Your task to perform on an android device: change the clock display to analog Image 0: 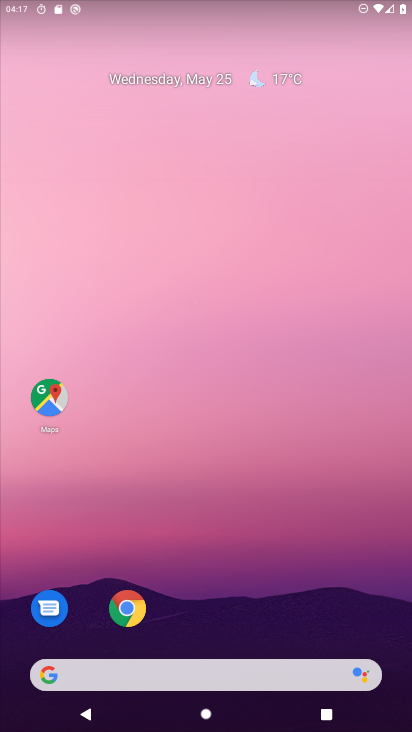
Step 0: drag from (243, 566) to (249, 135)
Your task to perform on an android device: change the clock display to analog Image 1: 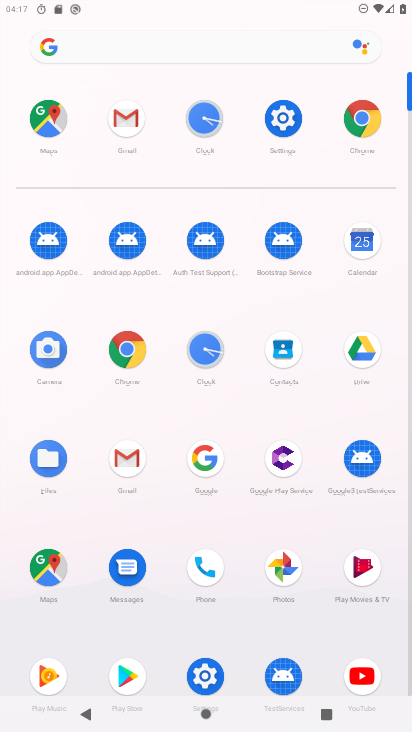
Step 1: click (209, 350)
Your task to perform on an android device: change the clock display to analog Image 2: 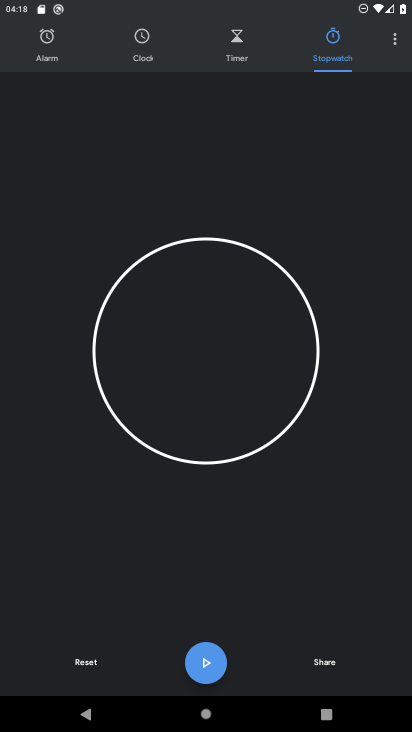
Step 2: click (393, 28)
Your task to perform on an android device: change the clock display to analog Image 3: 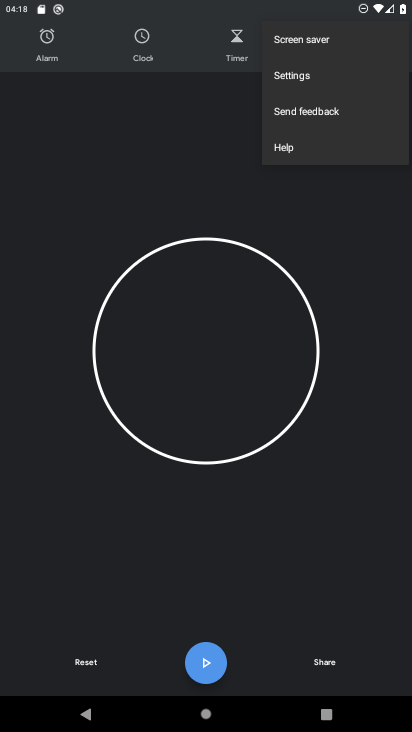
Step 3: click (309, 73)
Your task to perform on an android device: change the clock display to analog Image 4: 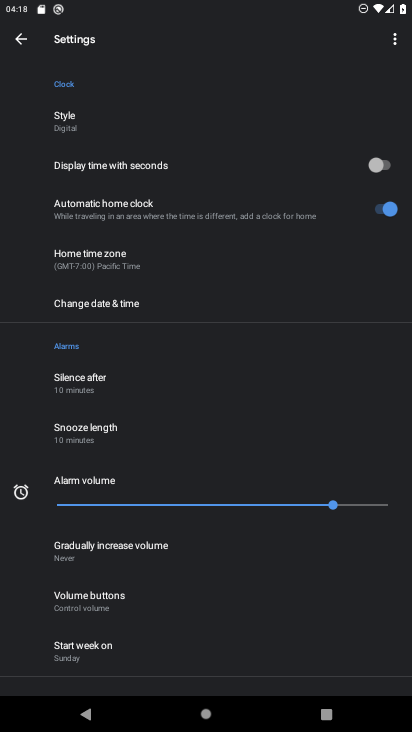
Step 4: click (68, 114)
Your task to perform on an android device: change the clock display to analog Image 5: 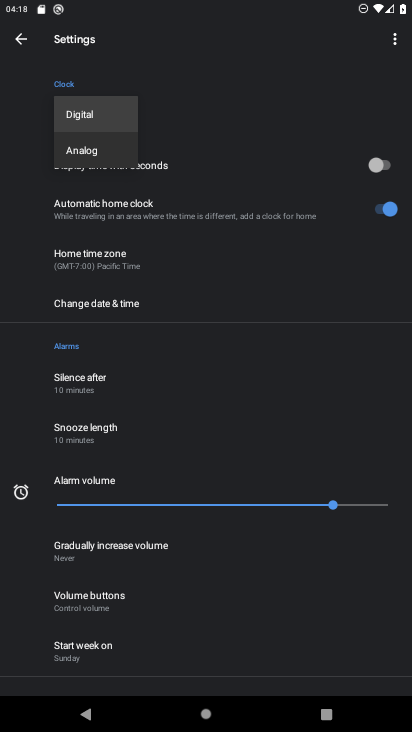
Step 5: click (112, 154)
Your task to perform on an android device: change the clock display to analog Image 6: 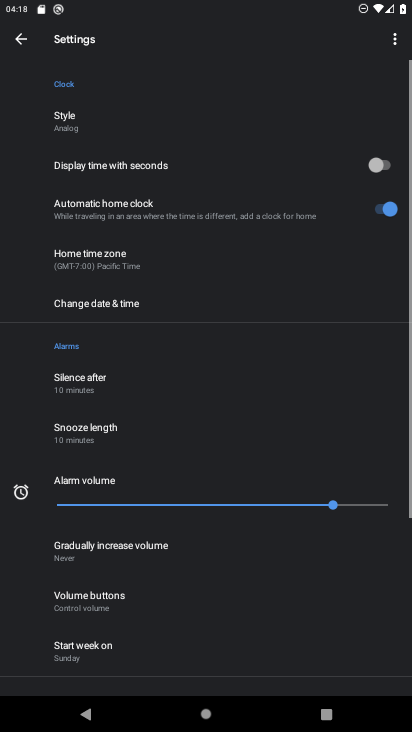
Step 6: task complete